Your task to perform on an android device: add a label to a message in the gmail app Image 0: 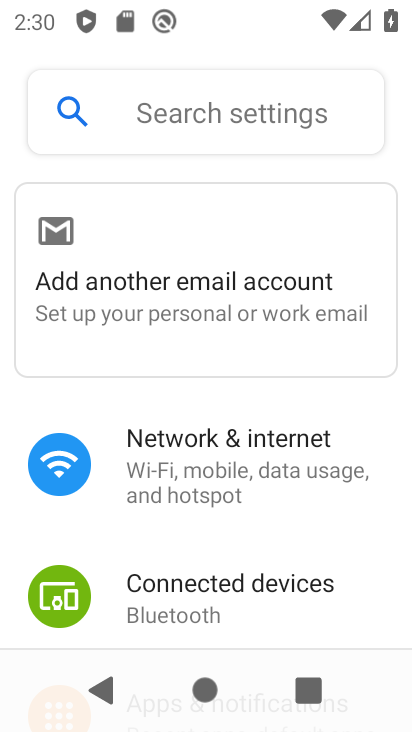
Step 0: press home button
Your task to perform on an android device: add a label to a message in the gmail app Image 1: 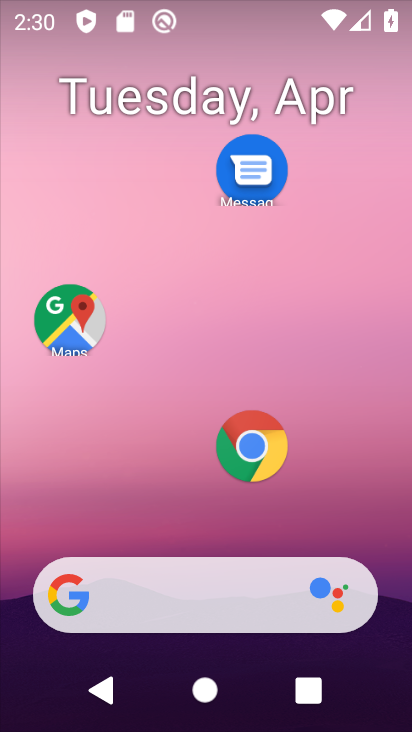
Step 1: drag from (171, 401) to (237, 2)
Your task to perform on an android device: add a label to a message in the gmail app Image 2: 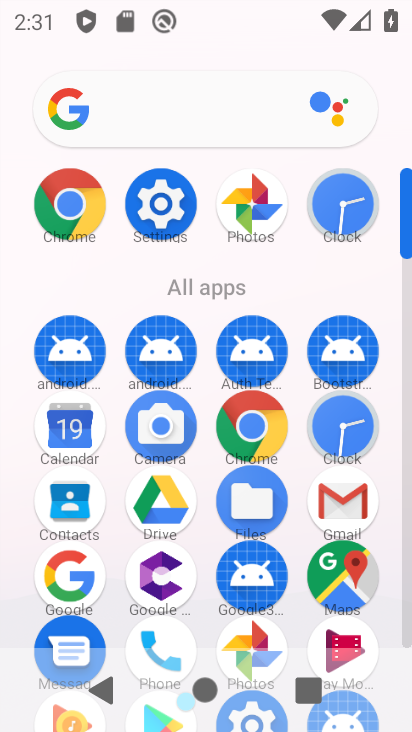
Step 2: click (332, 493)
Your task to perform on an android device: add a label to a message in the gmail app Image 3: 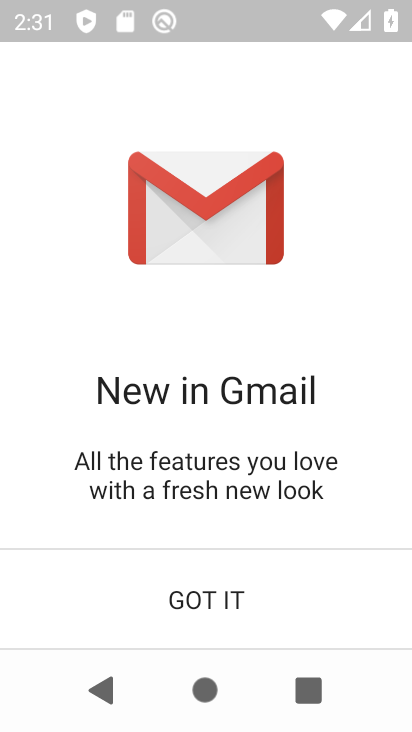
Step 3: click (214, 591)
Your task to perform on an android device: add a label to a message in the gmail app Image 4: 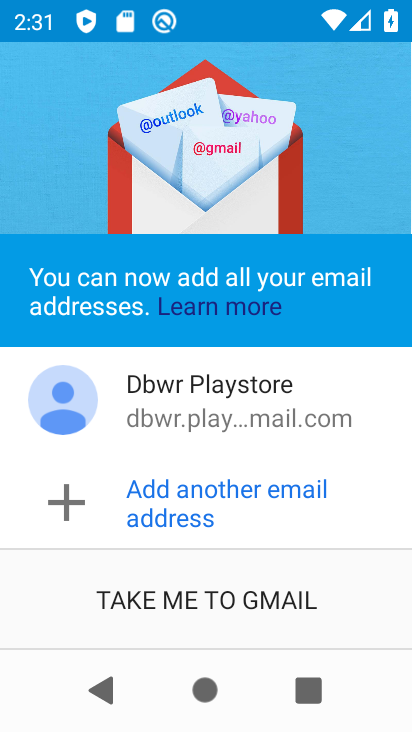
Step 4: click (197, 600)
Your task to perform on an android device: add a label to a message in the gmail app Image 5: 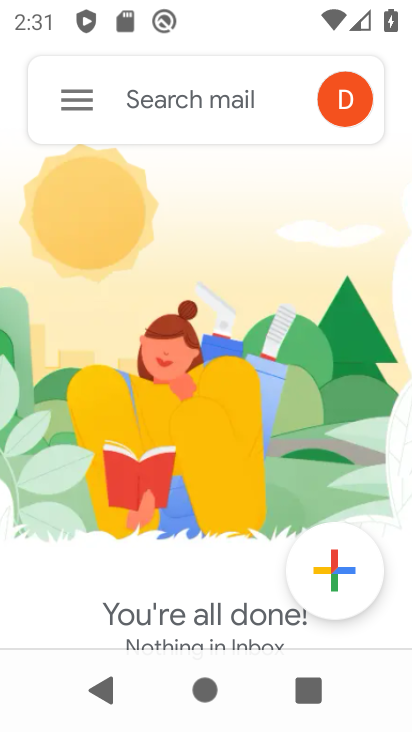
Step 5: task complete